Your task to perform on an android device: Open Amazon Image 0: 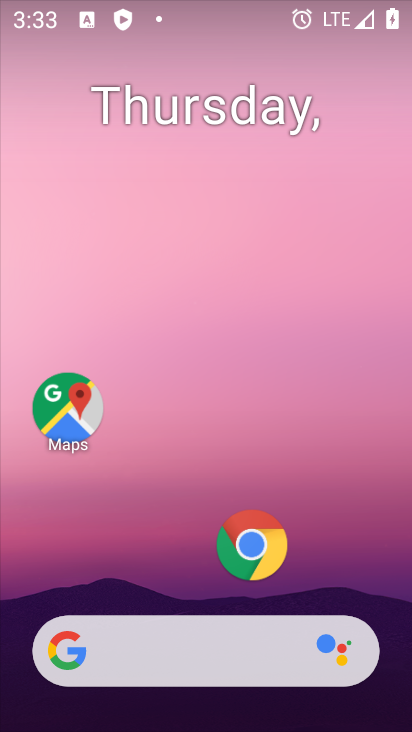
Step 0: drag from (105, 564) to (190, 128)
Your task to perform on an android device: Open Amazon Image 1: 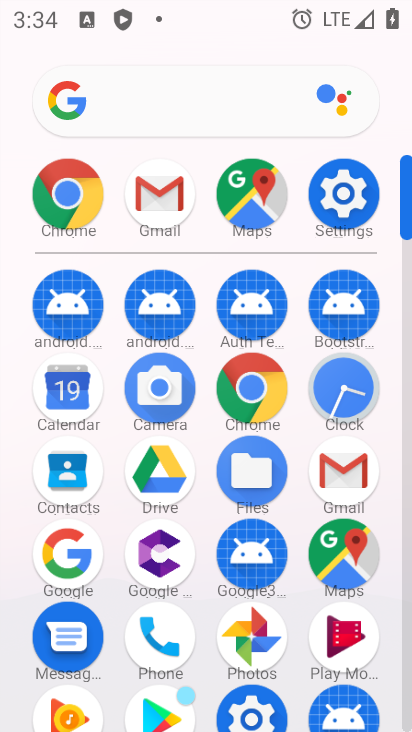
Step 1: click (257, 382)
Your task to perform on an android device: Open Amazon Image 2: 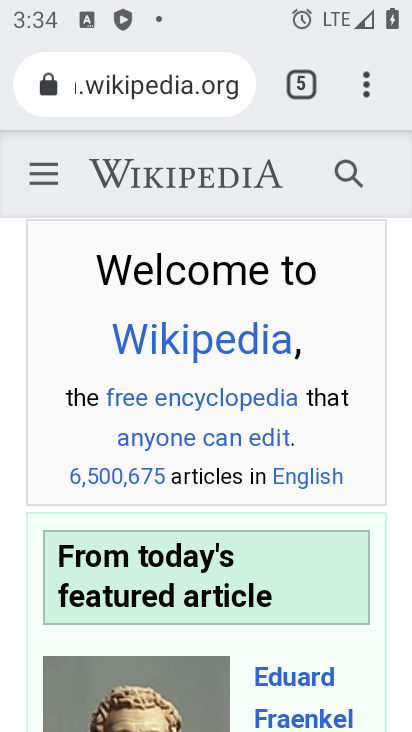
Step 2: click (372, 94)
Your task to perform on an android device: Open Amazon Image 3: 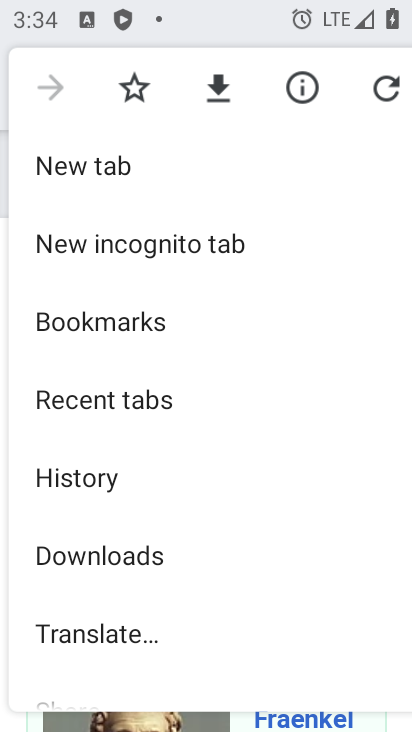
Step 3: click (197, 174)
Your task to perform on an android device: Open Amazon Image 4: 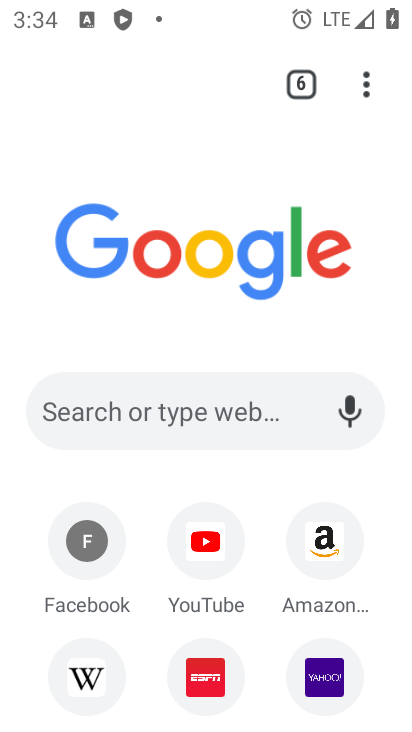
Step 4: click (314, 545)
Your task to perform on an android device: Open Amazon Image 5: 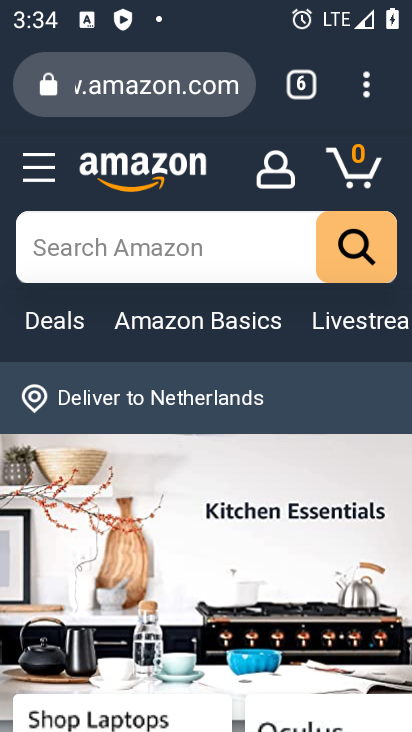
Step 5: task complete